Your task to perform on an android device: Search for sushi restaurants on Maps Image 0: 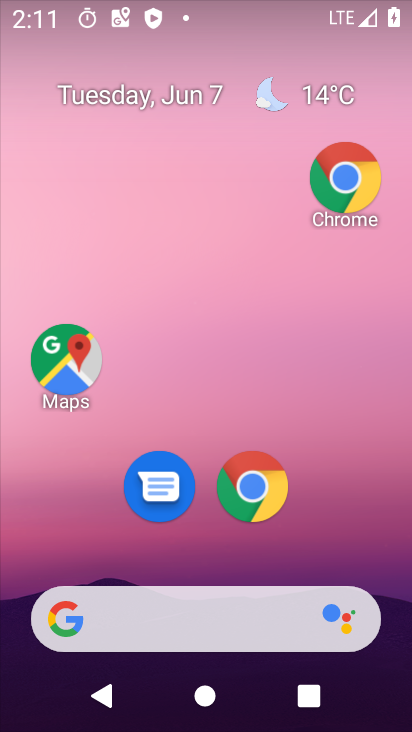
Step 0: click (72, 379)
Your task to perform on an android device: Search for sushi restaurants on Maps Image 1: 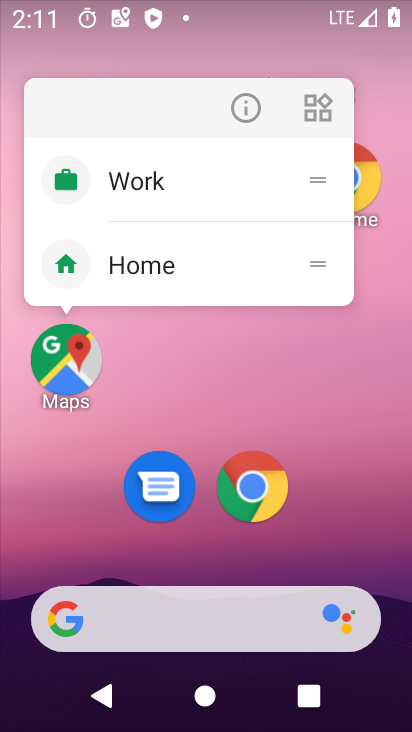
Step 1: click (65, 377)
Your task to perform on an android device: Search for sushi restaurants on Maps Image 2: 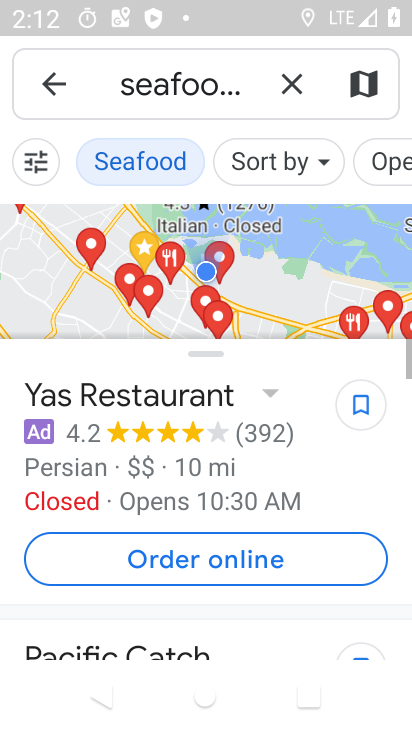
Step 2: click (292, 91)
Your task to perform on an android device: Search for sushi restaurants on Maps Image 3: 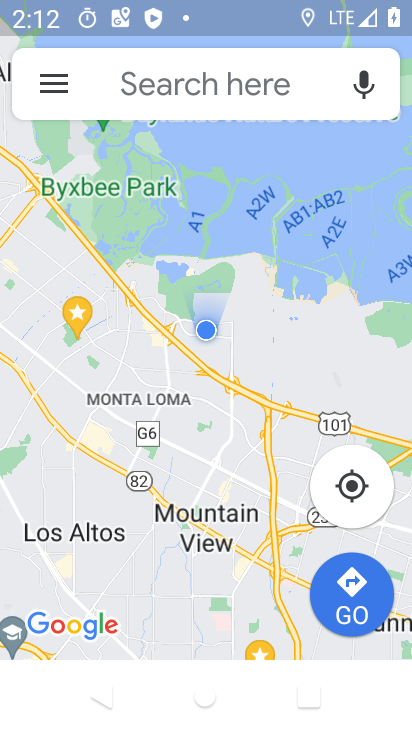
Step 3: click (272, 96)
Your task to perform on an android device: Search for sushi restaurants on Maps Image 4: 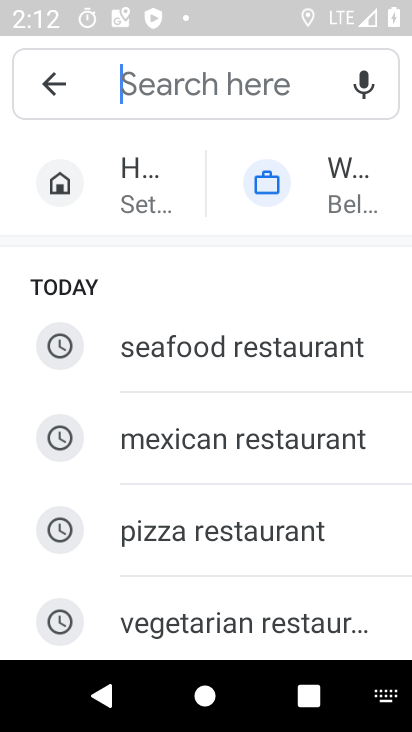
Step 4: type "sushi restaurants"
Your task to perform on an android device: Search for sushi restaurants on Maps Image 5: 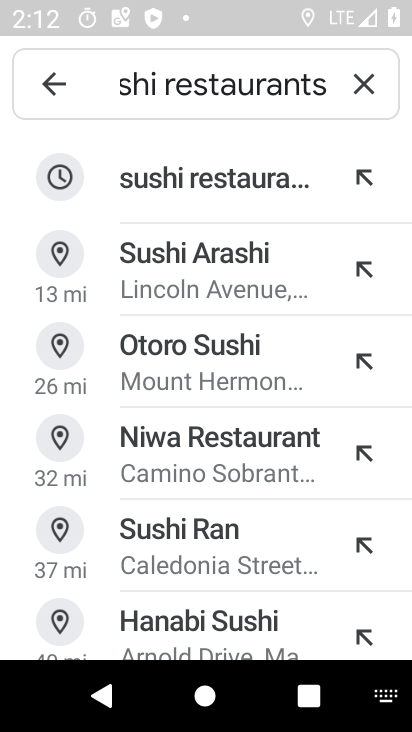
Step 5: click (213, 158)
Your task to perform on an android device: Search for sushi restaurants on Maps Image 6: 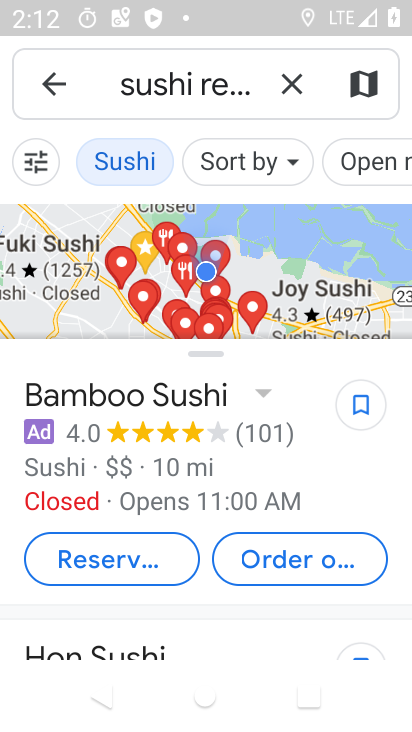
Step 6: task complete